Your task to perform on an android device: turn off smart reply in the gmail app Image 0: 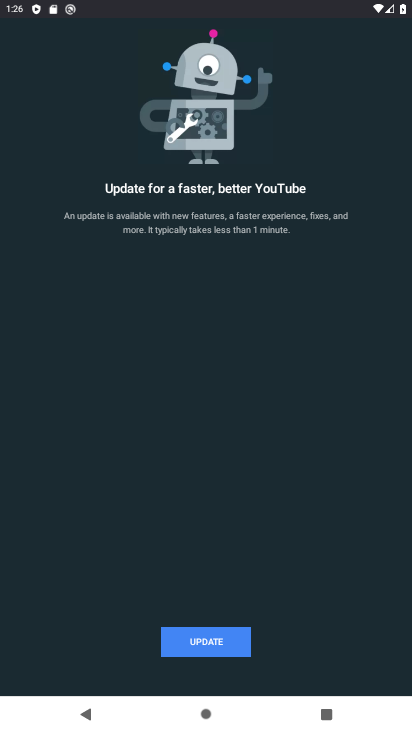
Step 0: press home button
Your task to perform on an android device: turn off smart reply in the gmail app Image 1: 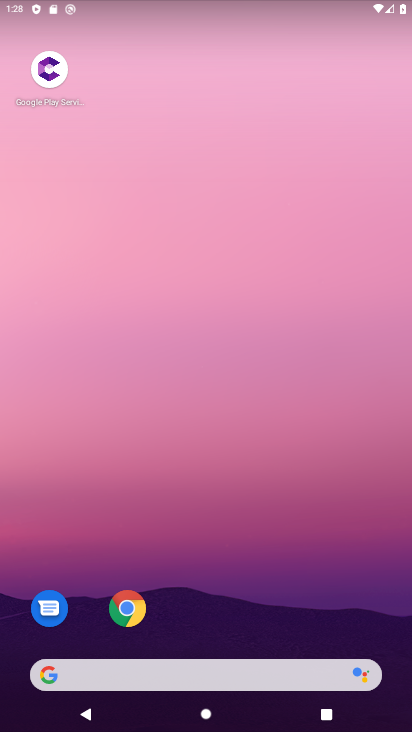
Step 1: drag from (212, 551) to (216, 214)
Your task to perform on an android device: turn off smart reply in the gmail app Image 2: 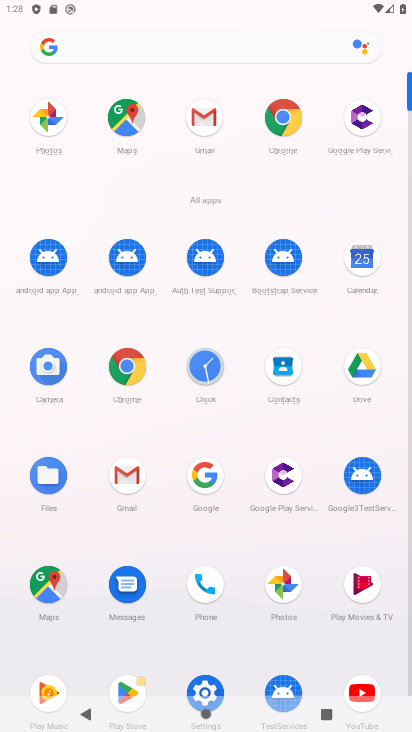
Step 2: click (220, 117)
Your task to perform on an android device: turn off smart reply in the gmail app Image 3: 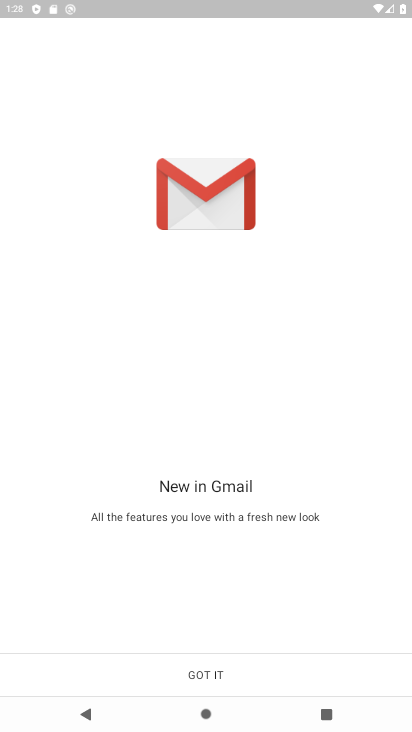
Step 3: click (229, 674)
Your task to perform on an android device: turn off smart reply in the gmail app Image 4: 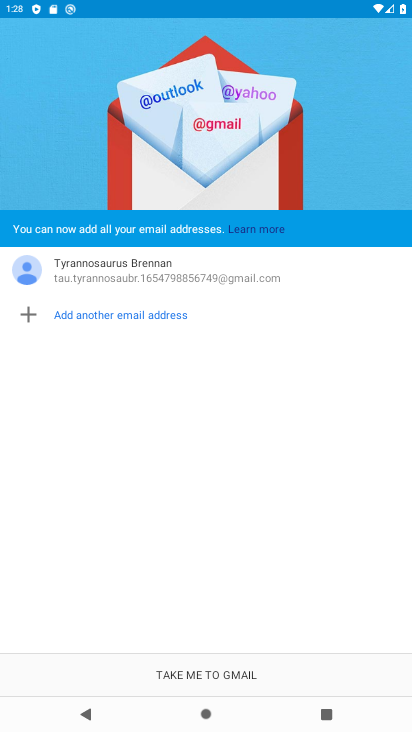
Step 4: click (218, 672)
Your task to perform on an android device: turn off smart reply in the gmail app Image 5: 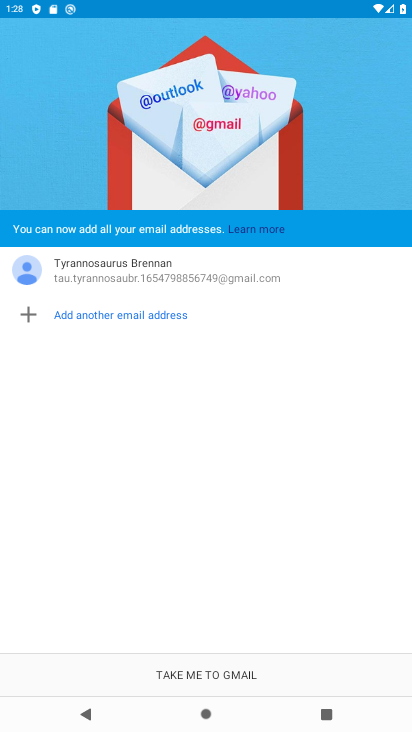
Step 5: click (185, 677)
Your task to perform on an android device: turn off smart reply in the gmail app Image 6: 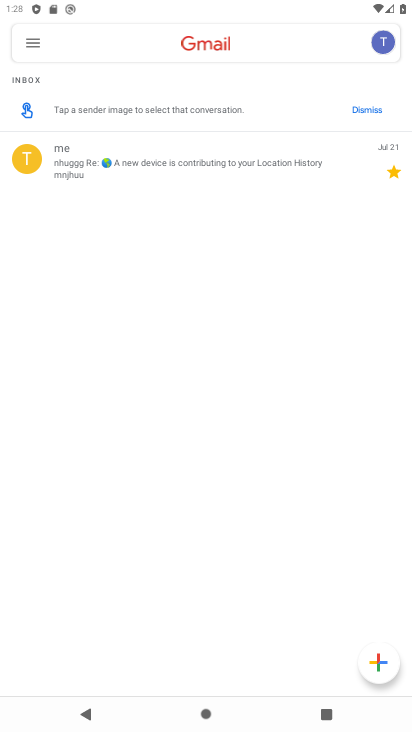
Step 6: click (31, 37)
Your task to perform on an android device: turn off smart reply in the gmail app Image 7: 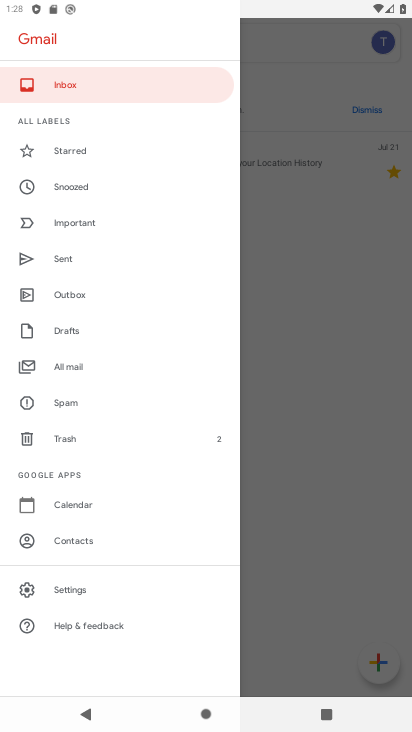
Step 7: click (72, 596)
Your task to perform on an android device: turn off smart reply in the gmail app Image 8: 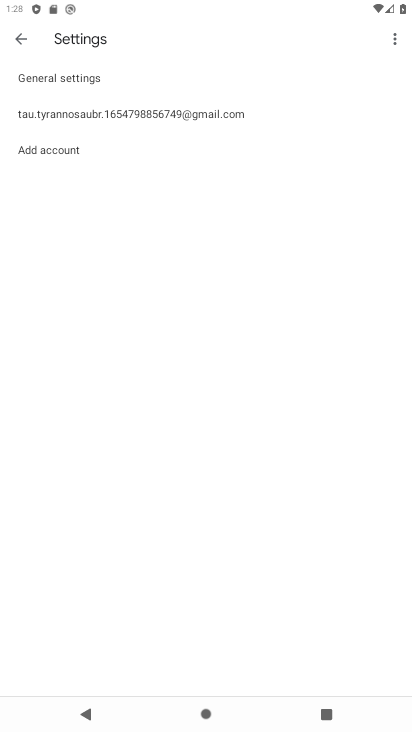
Step 8: click (76, 114)
Your task to perform on an android device: turn off smart reply in the gmail app Image 9: 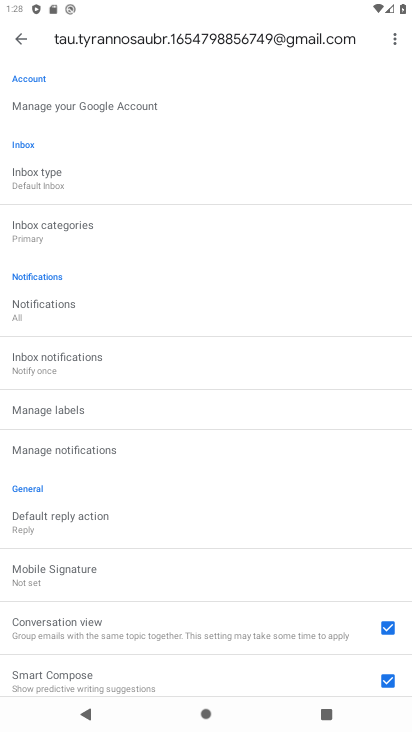
Step 9: drag from (124, 356) to (124, 192)
Your task to perform on an android device: turn off smart reply in the gmail app Image 10: 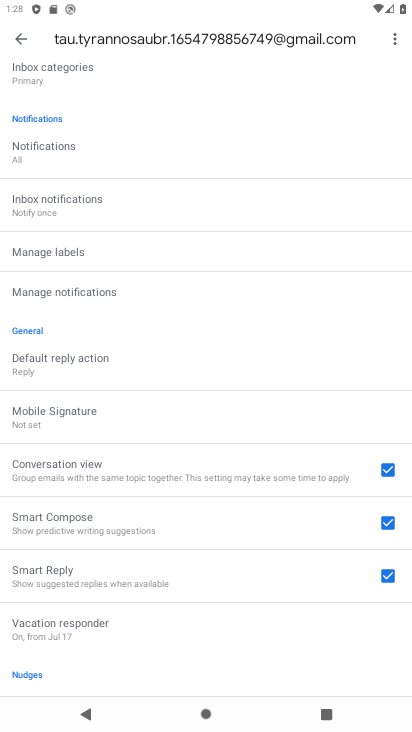
Step 10: click (384, 574)
Your task to perform on an android device: turn off smart reply in the gmail app Image 11: 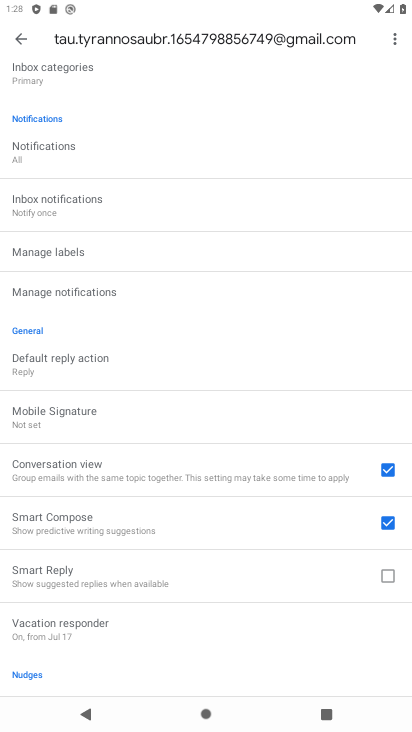
Step 11: task complete